Your task to perform on an android device: Add bose soundsport free to the cart on newegg, then select checkout. Image 0: 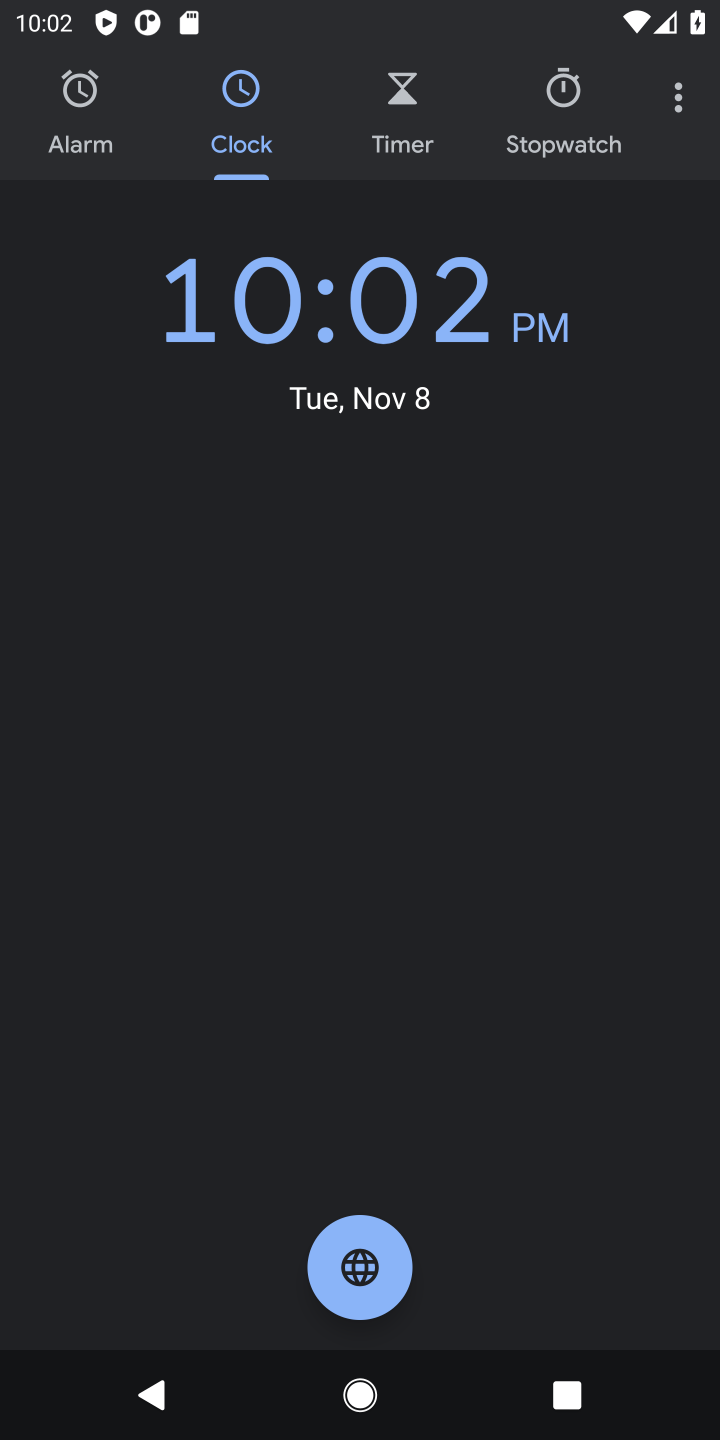
Step 0: press home button
Your task to perform on an android device: Add bose soundsport free to the cart on newegg, then select checkout. Image 1: 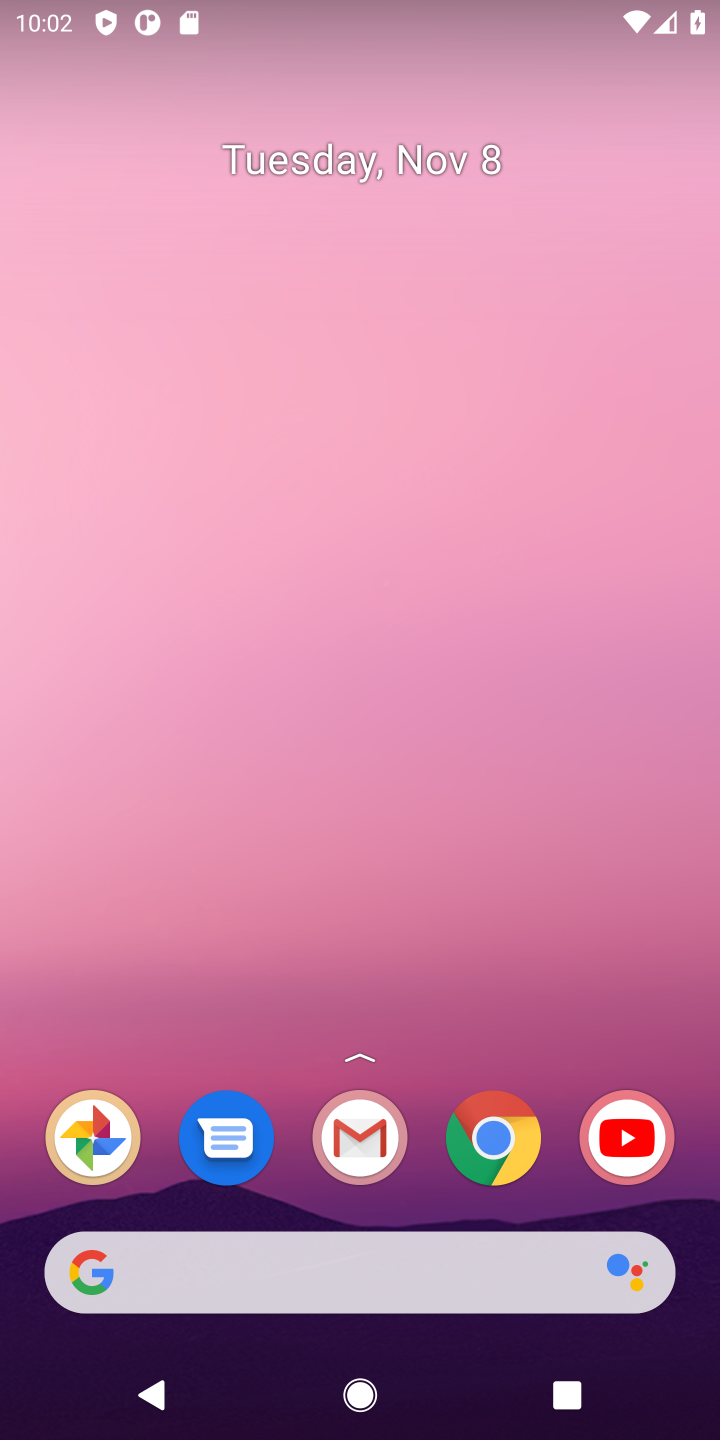
Step 1: click (494, 1143)
Your task to perform on an android device: Add bose soundsport free to the cart on newegg, then select checkout. Image 2: 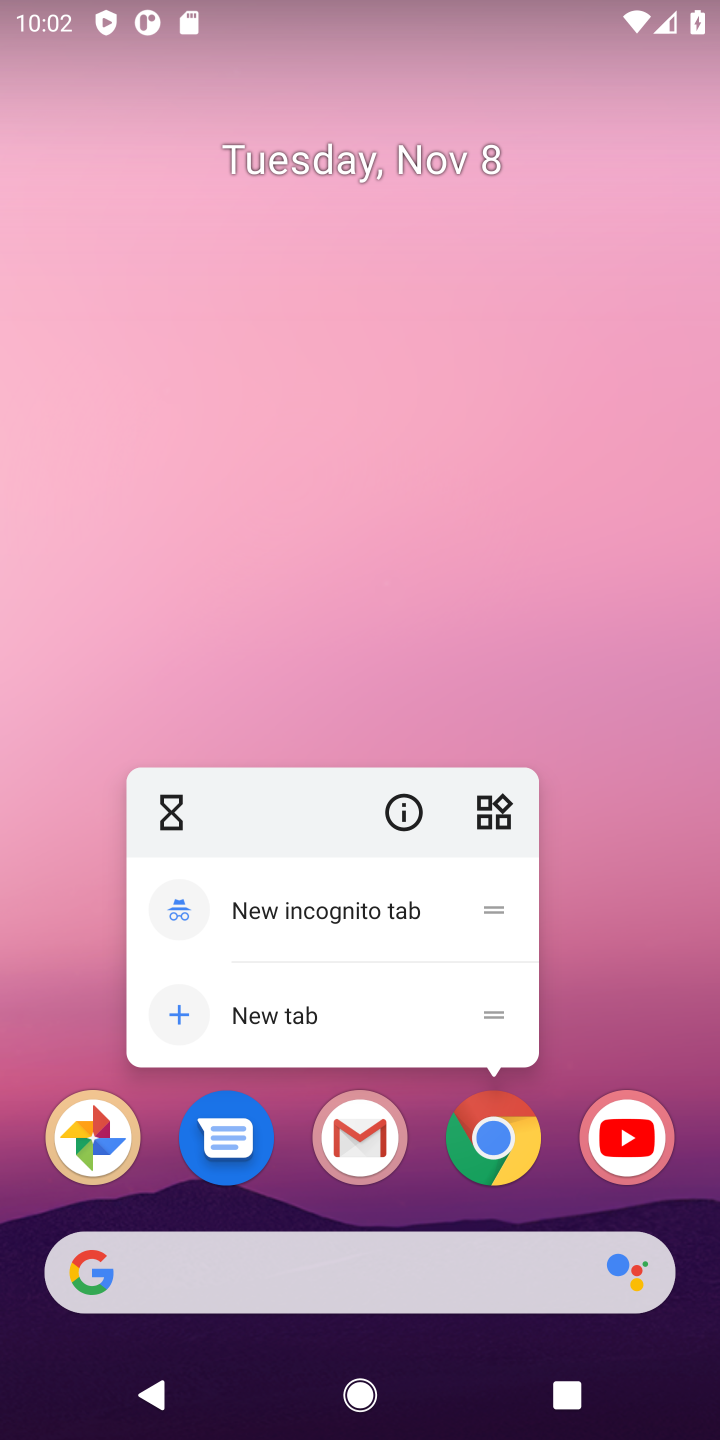
Step 2: click (492, 1129)
Your task to perform on an android device: Add bose soundsport free to the cart on newegg, then select checkout. Image 3: 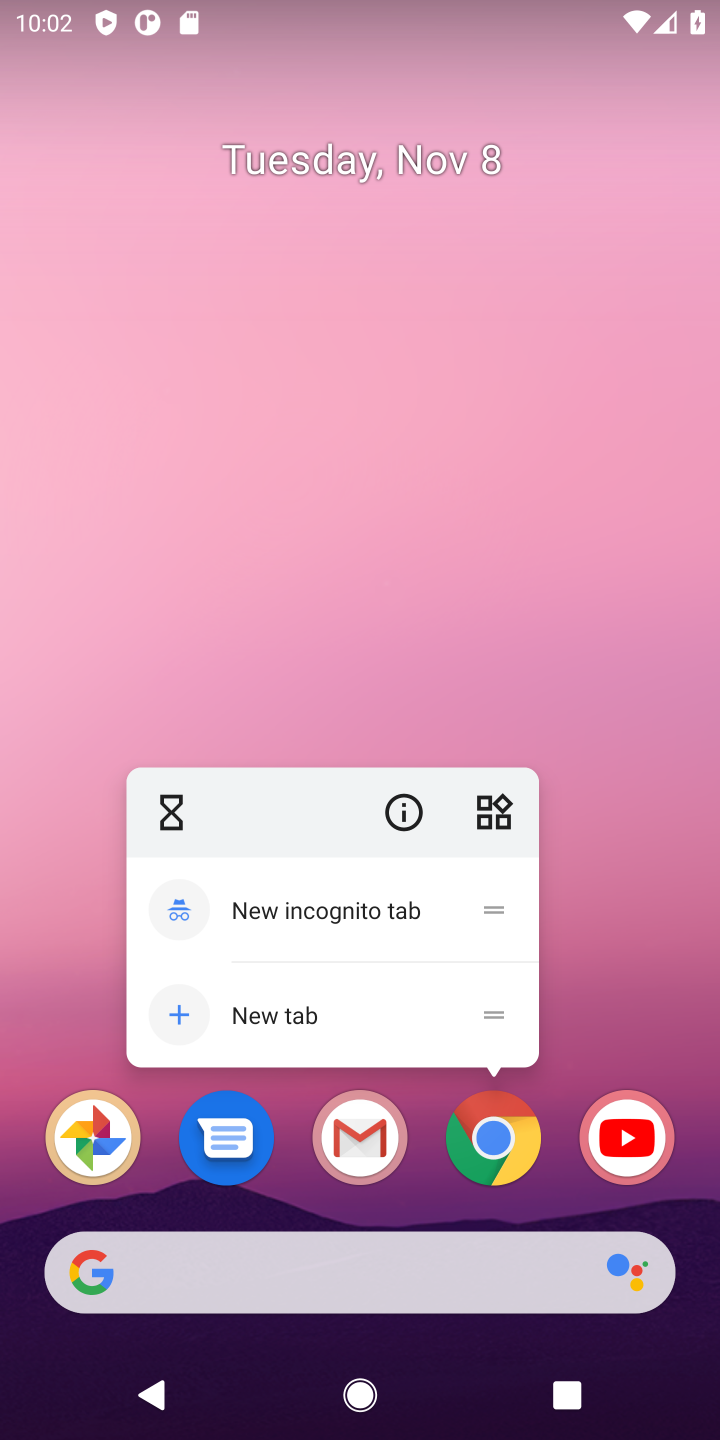
Step 3: click (492, 1129)
Your task to perform on an android device: Add bose soundsport free to the cart on newegg, then select checkout. Image 4: 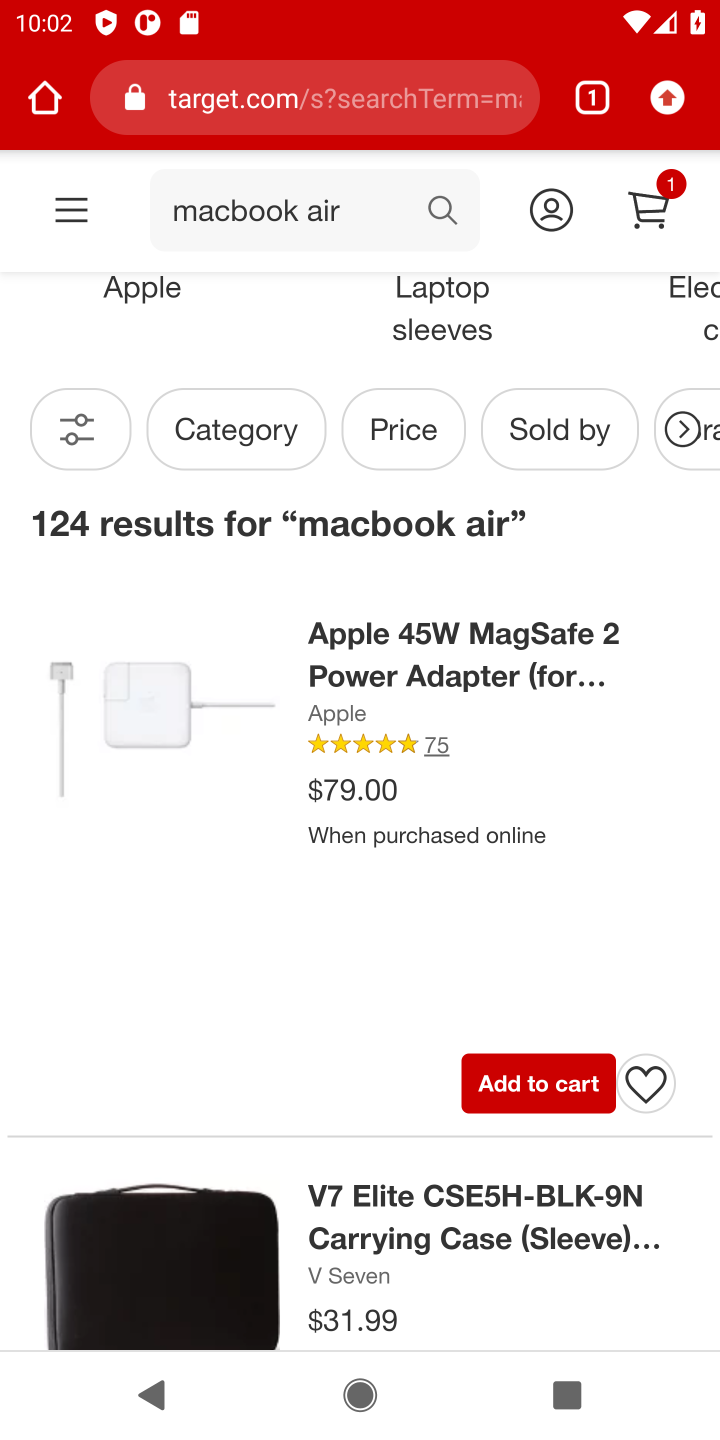
Step 4: click (403, 98)
Your task to perform on an android device: Add bose soundsport free to the cart on newegg, then select checkout. Image 5: 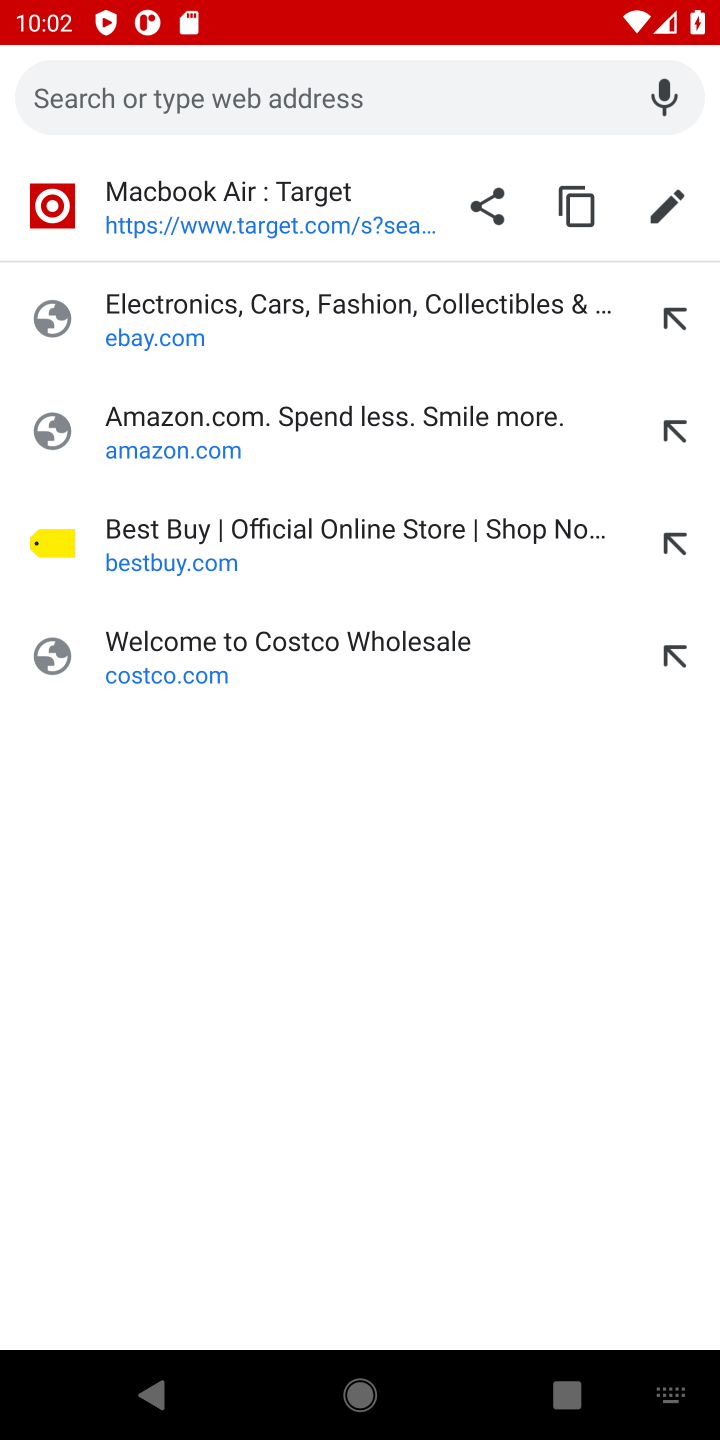
Step 5: type "newegg"
Your task to perform on an android device: Add bose soundsport free to the cart on newegg, then select checkout. Image 6: 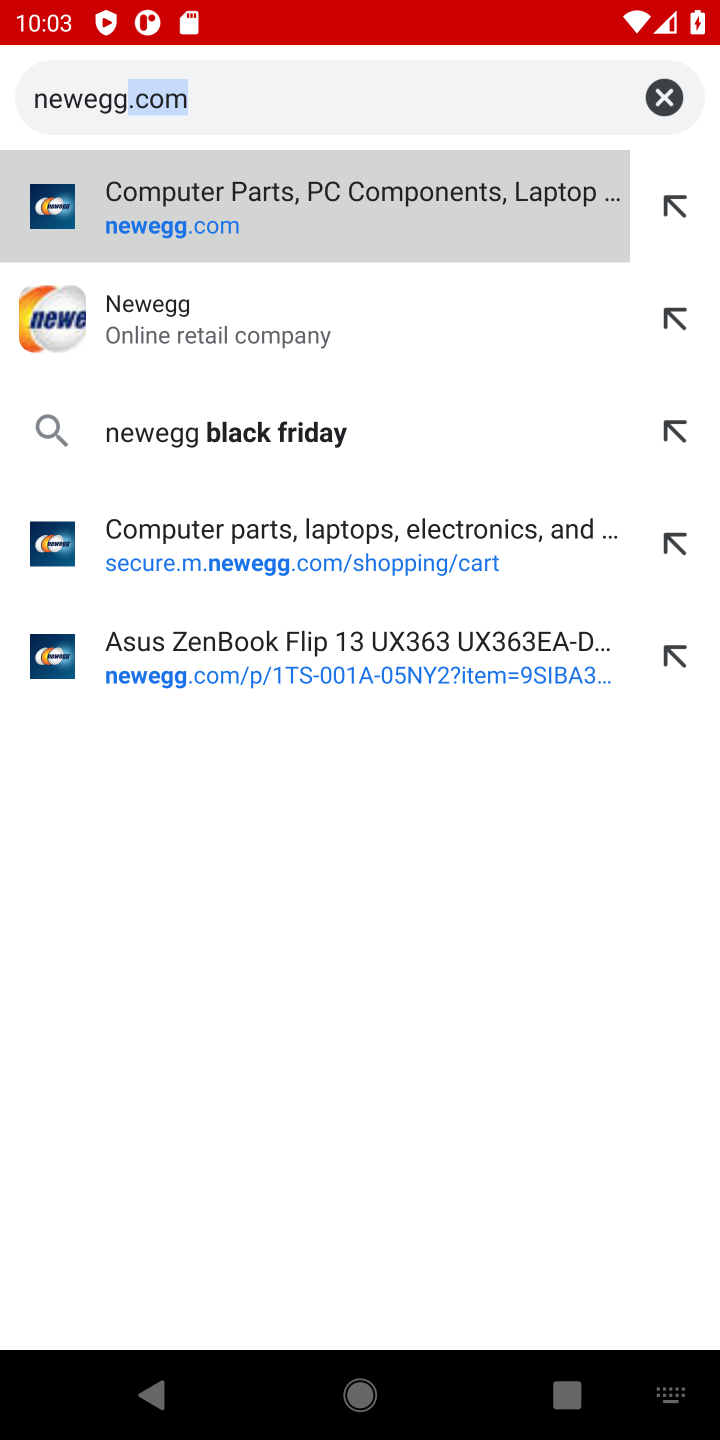
Step 6: press enter
Your task to perform on an android device: Add bose soundsport free to the cart on newegg, then select checkout. Image 7: 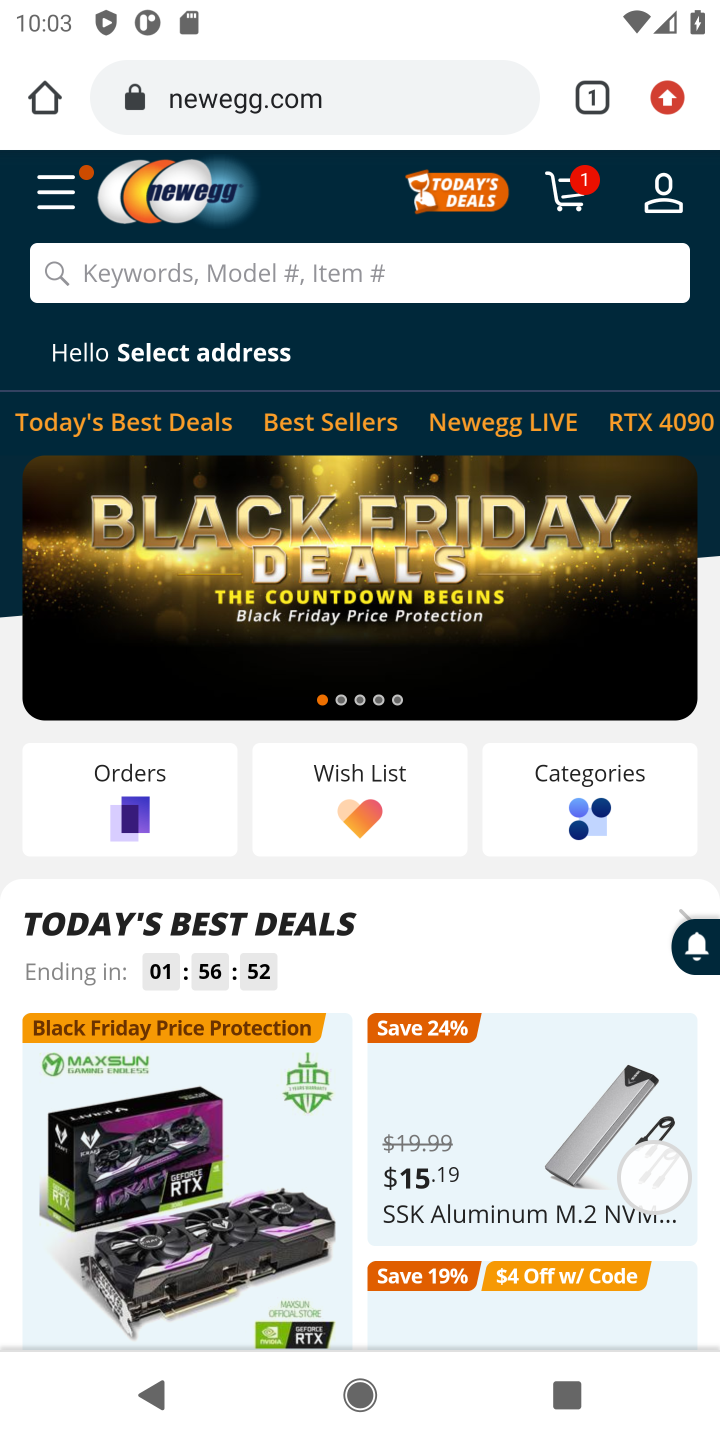
Step 7: click (324, 269)
Your task to perform on an android device: Add bose soundsport free to the cart on newegg, then select checkout. Image 8: 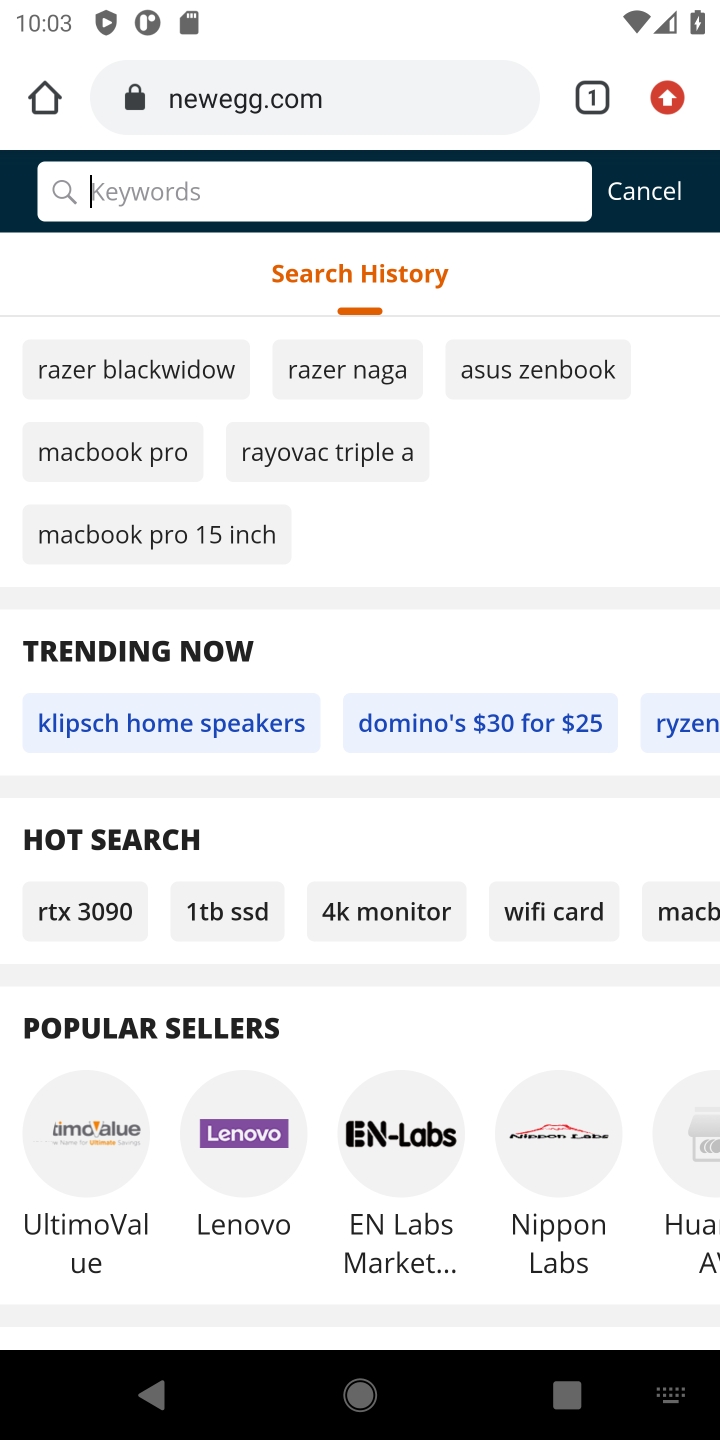
Step 8: type "bose soundsport free"
Your task to perform on an android device: Add bose soundsport free to the cart on newegg, then select checkout. Image 9: 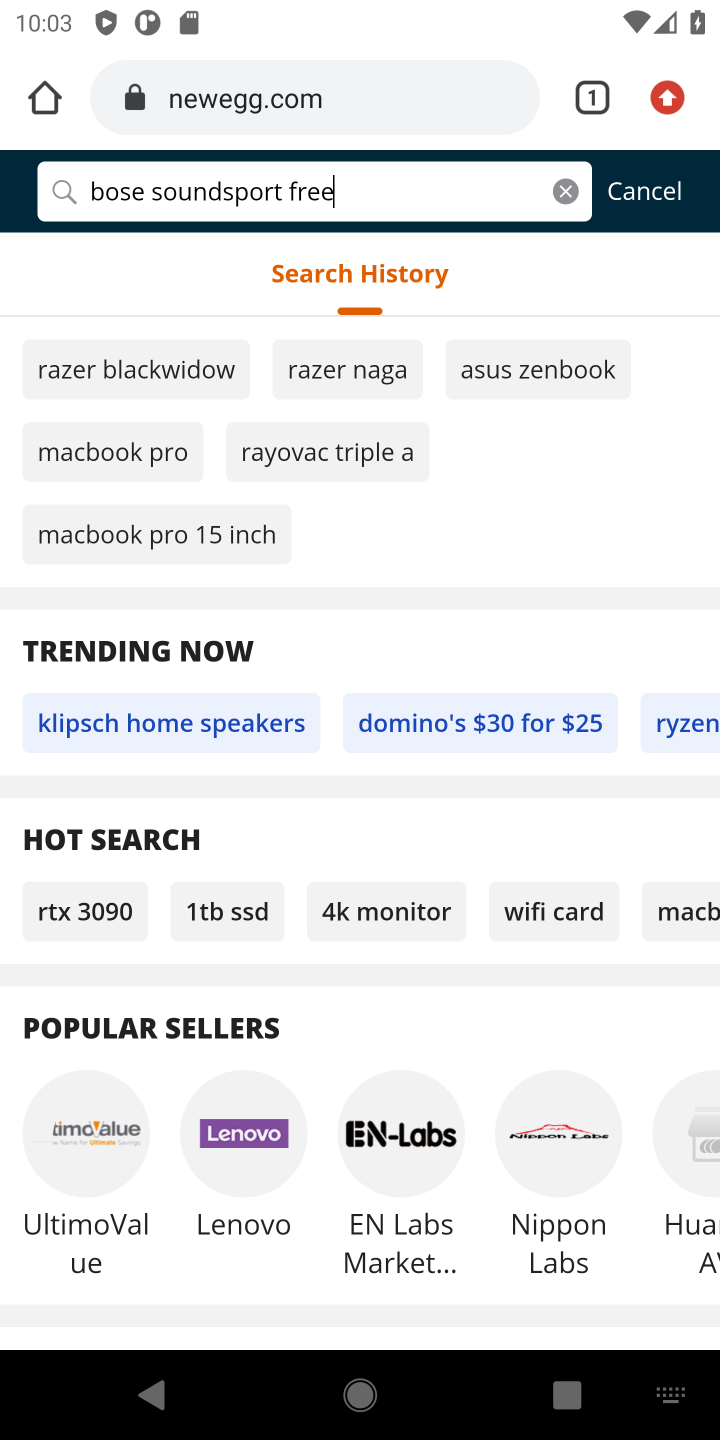
Step 9: press enter
Your task to perform on an android device: Add bose soundsport free to the cart on newegg, then select checkout. Image 10: 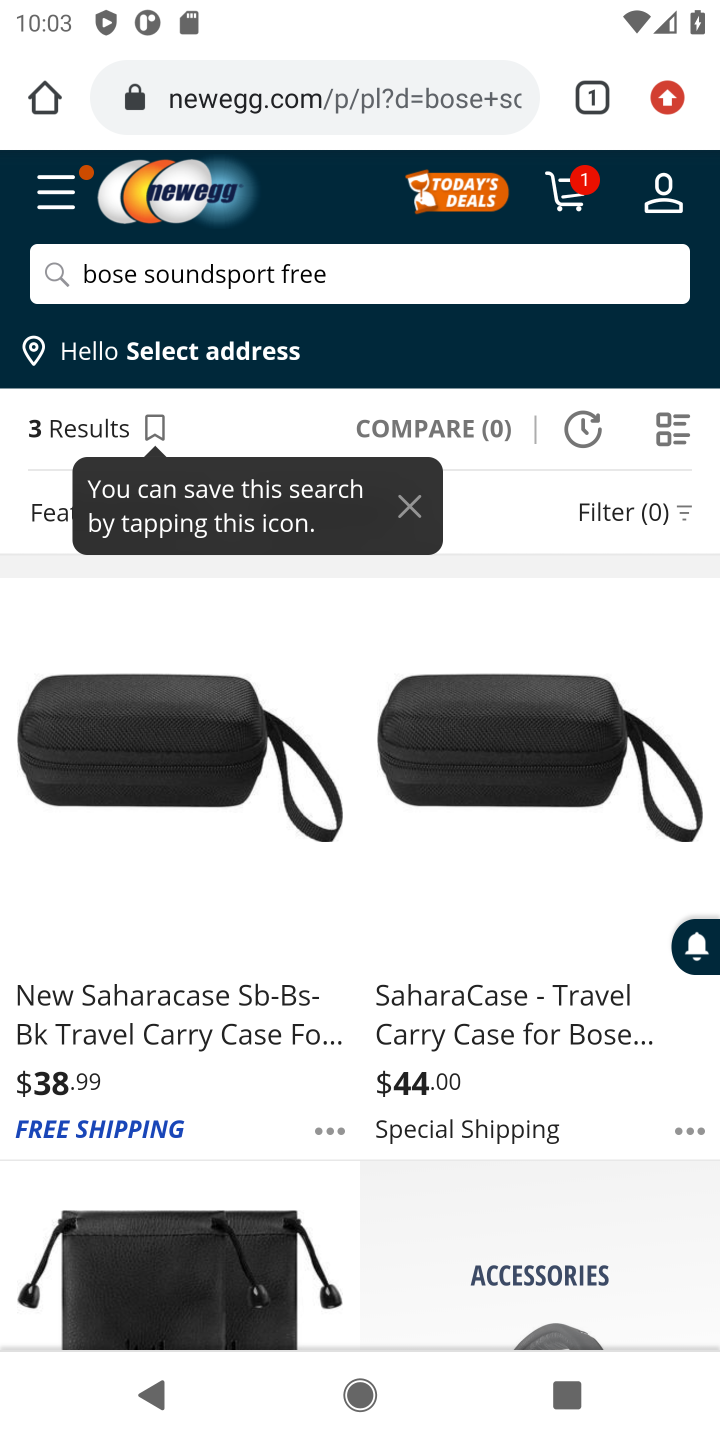
Step 10: drag from (241, 920) to (212, 1320)
Your task to perform on an android device: Add bose soundsport free to the cart on newegg, then select checkout. Image 11: 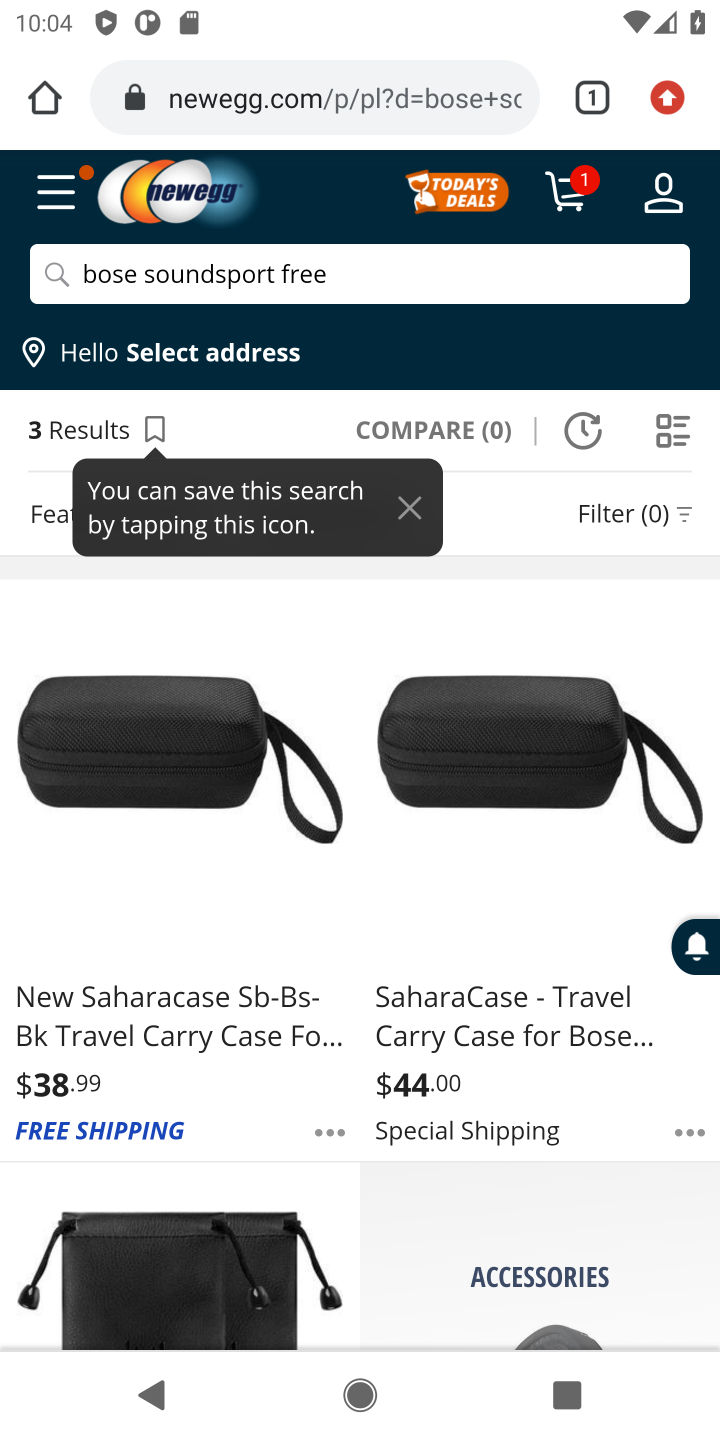
Step 11: click (151, 988)
Your task to perform on an android device: Add bose soundsport free to the cart on newegg, then select checkout. Image 12: 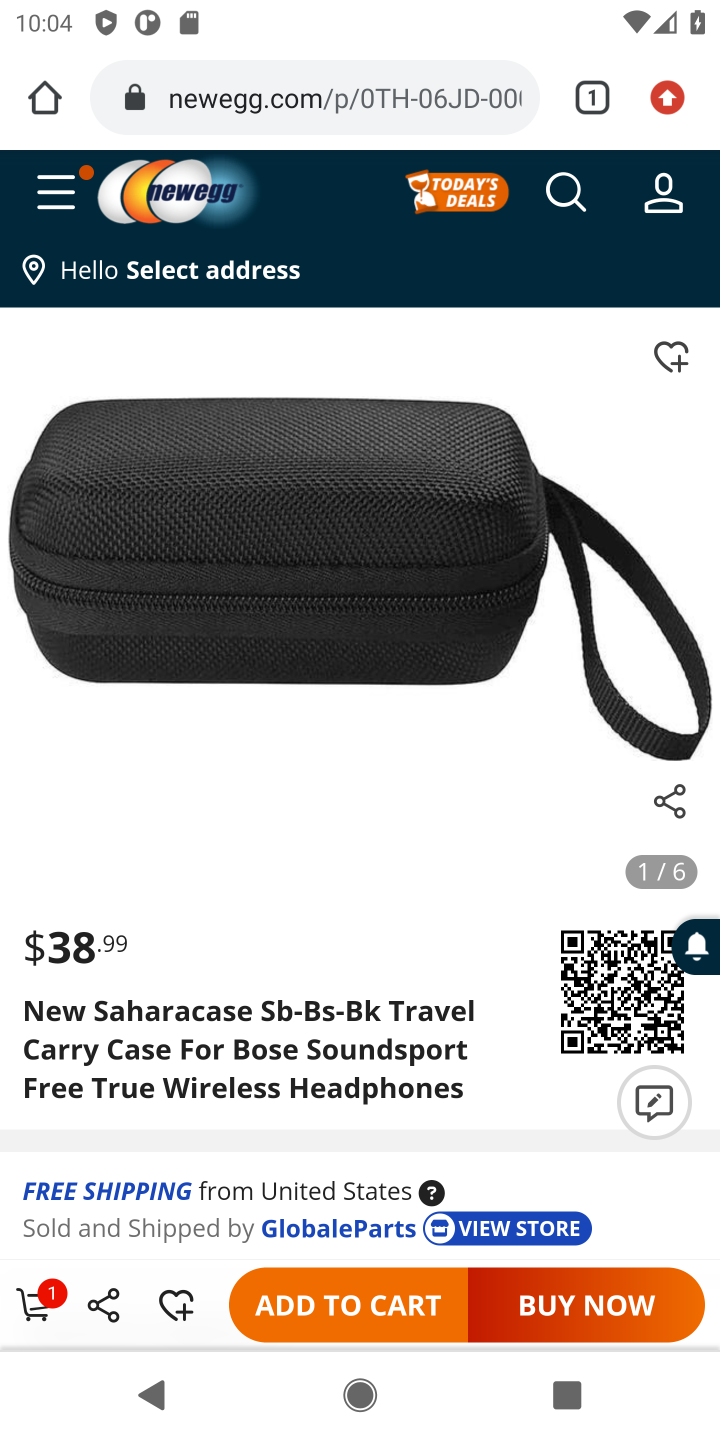
Step 12: click (362, 1312)
Your task to perform on an android device: Add bose soundsport free to the cart on newegg, then select checkout. Image 13: 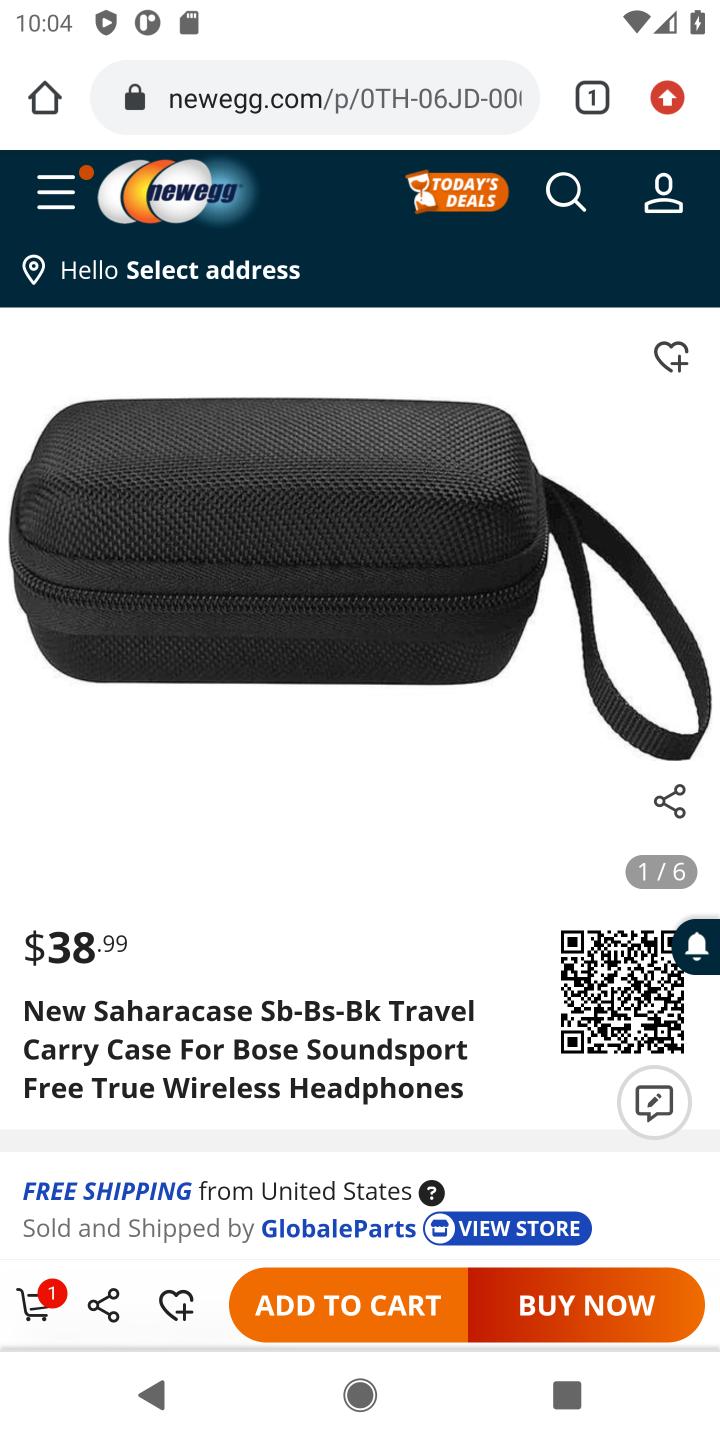
Step 13: click (366, 1298)
Your task to perform on an android device: Add bose soundsport free to the cart on newegg, then select checkout. Image 14: 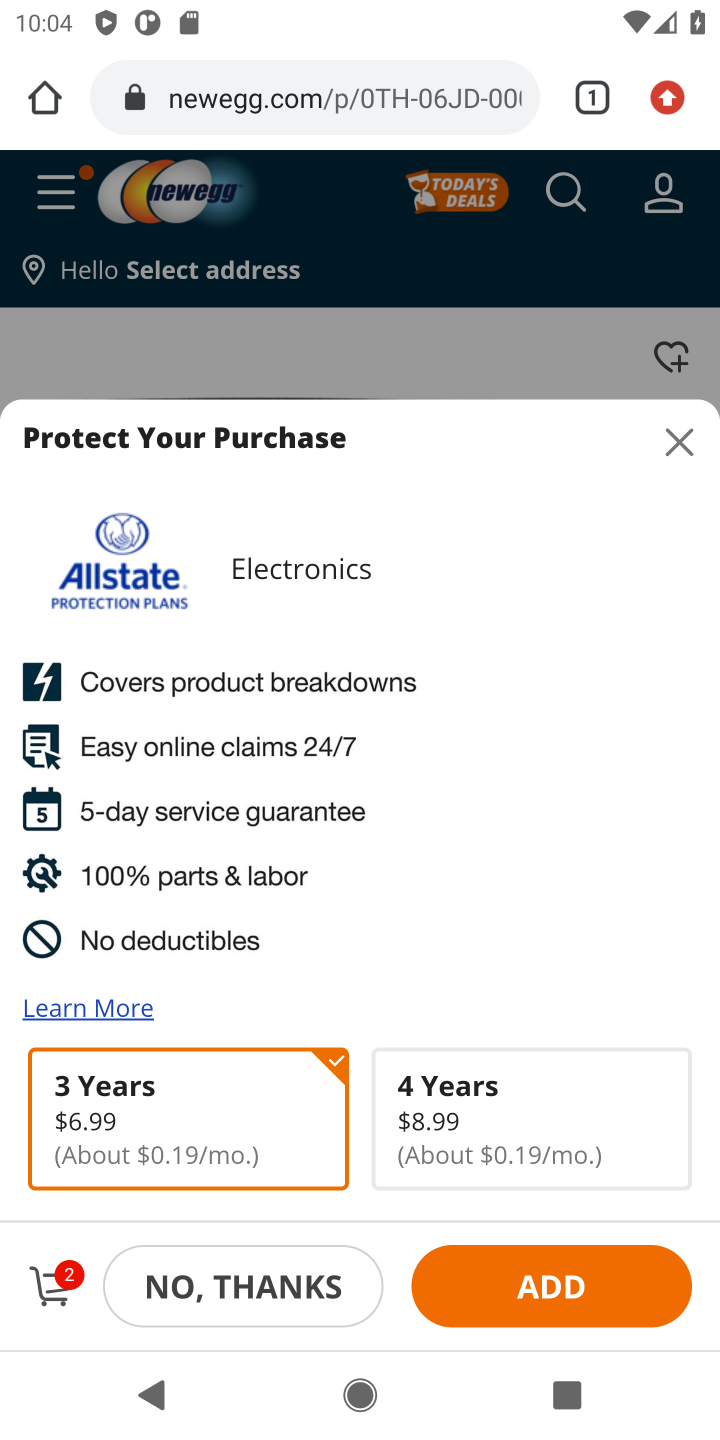
Step 14: click (62, 1273)
Your task to perform on an android device: Add bose soundsport free to the cart on newegg, then select checkout. Image 15: 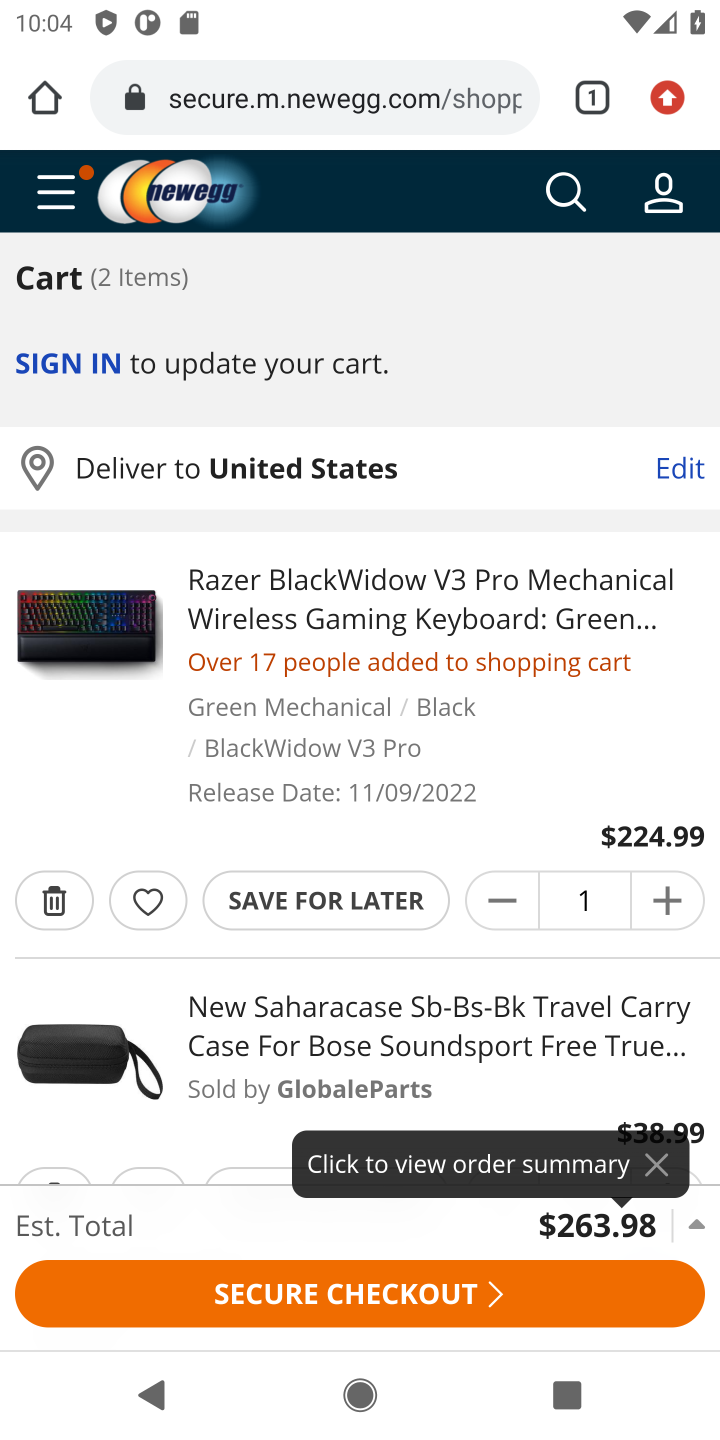
Step 15: click (52, 891)
Your task to perform on an android device: Add bose soundsport free to the cart on newegg, then select checkout. Image 16: 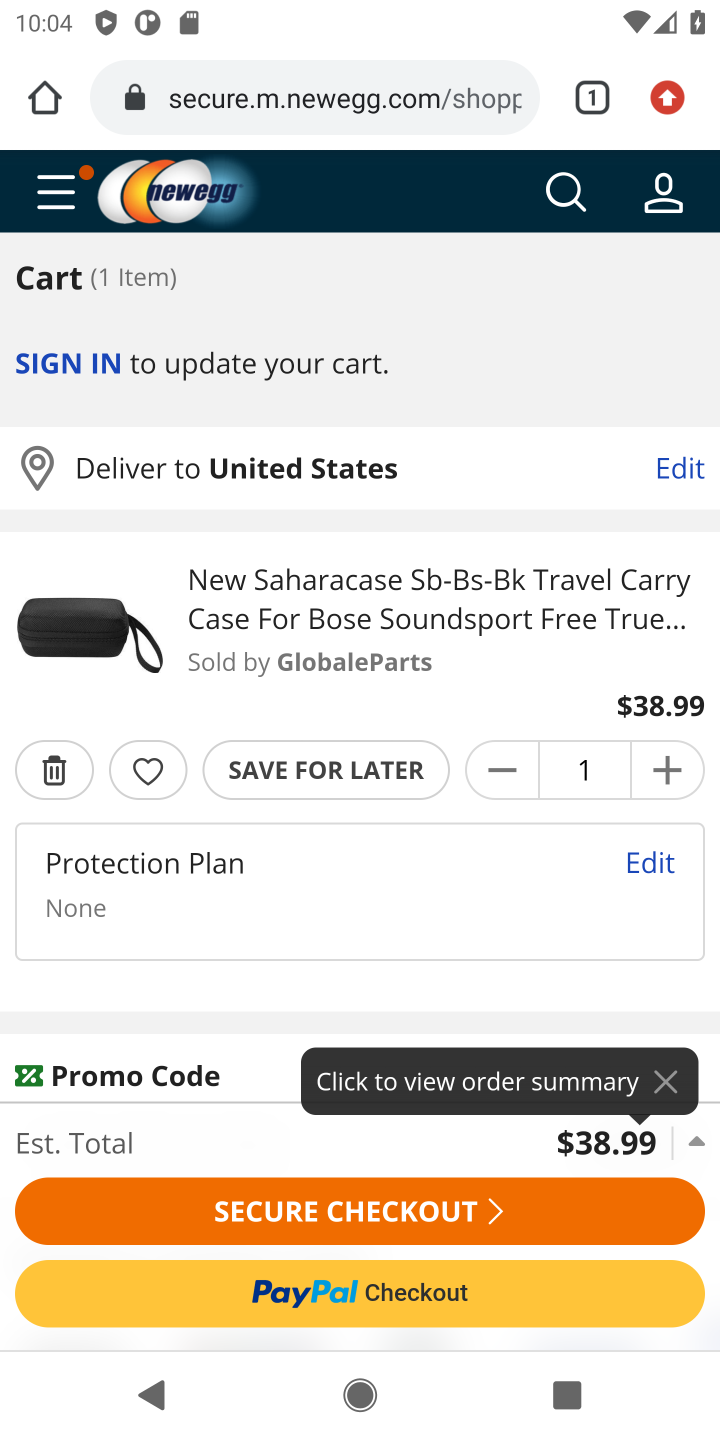
Step 16: click (427, 1212)
Your task to perform on an android device: Add bose soundsport free to the cart on newegg, then select checkout. Image 17: 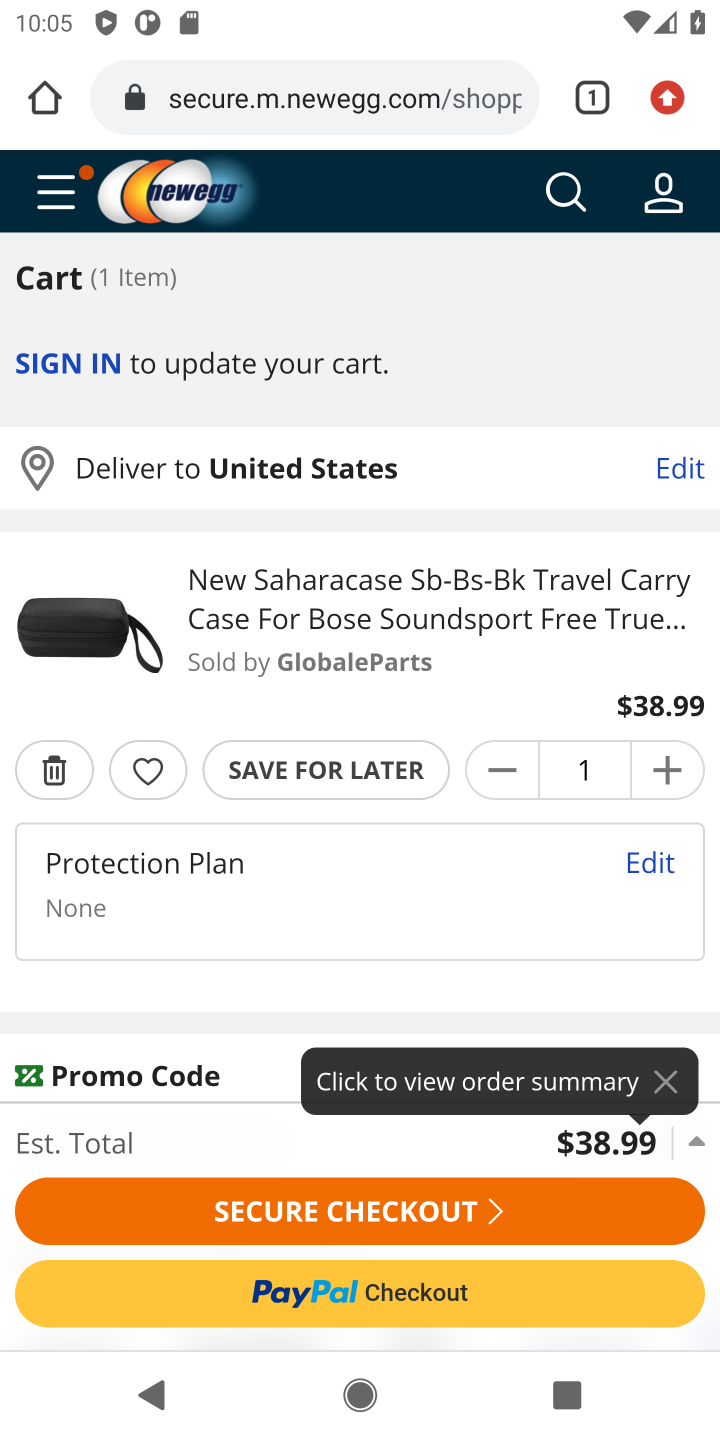
Step 17: click (378, 1212)
Your task to perform on an android device: Add bose soundsport free to the cart on newegg, then select checkout. Image 18: 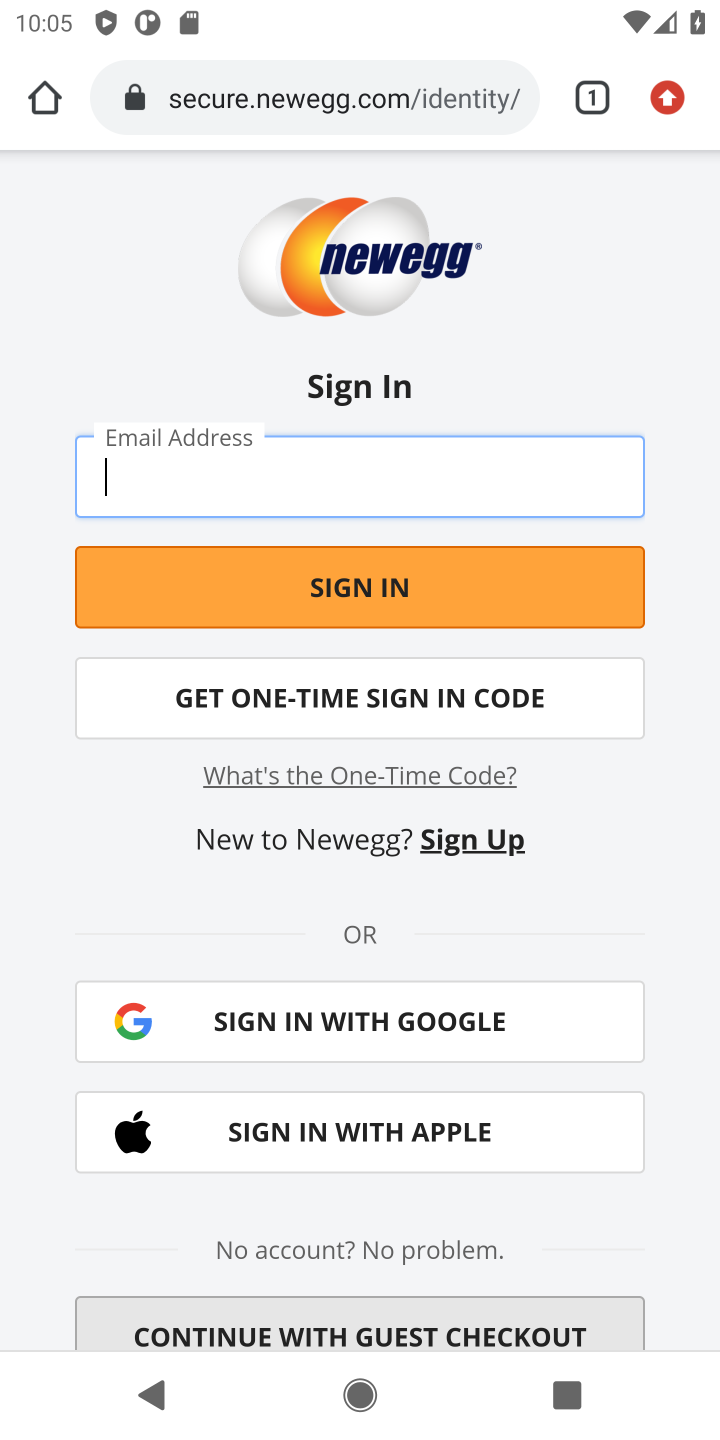
Step 18: task complete